Your task to perform on an android device: Open Maps and search for coffee Image 0: 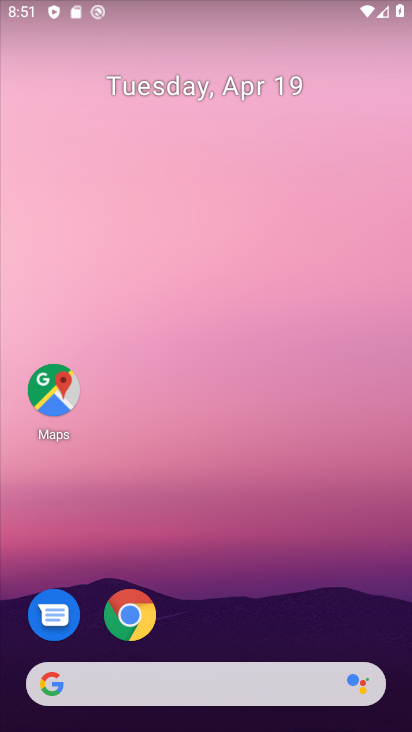
Step 0: click (56, 382)
Your task to perform on an android device: Open Maps and search for coffee Image 1: 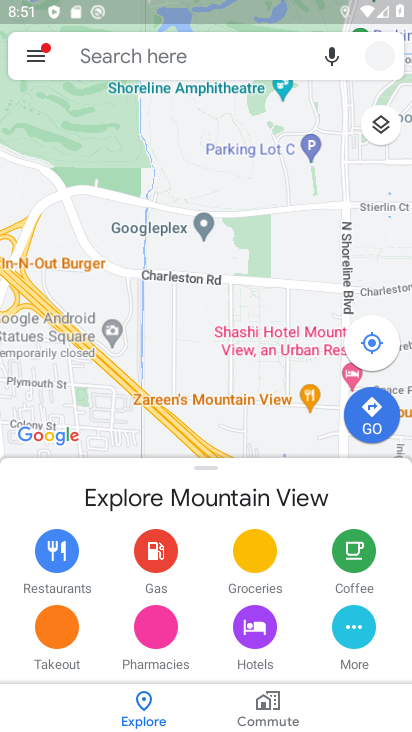
Step 1: click (222, 54)
Your task to perform on an android device: Open Maps and search for coffee Image 2: 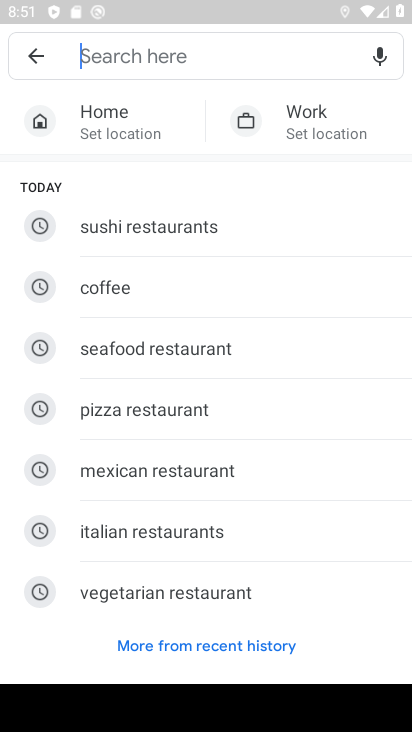
Step 2: click (225, 282)
Your task to perform on an android device: Open Maps and search for coffee Image 3: 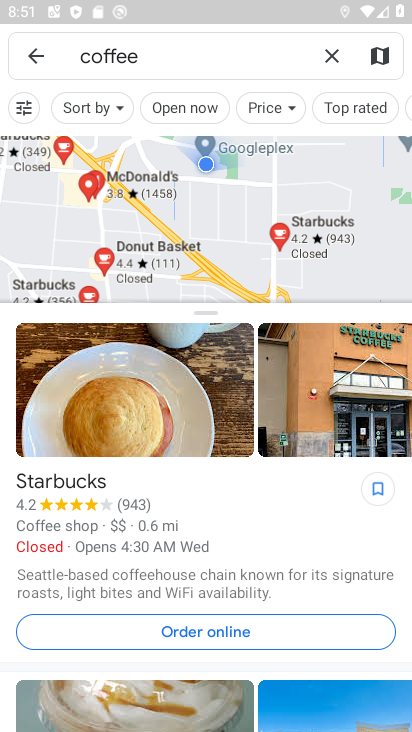
Step 3: task complete